Your task to perform on an android device: read, delete, or share a saved page in the chrome app Image 0: 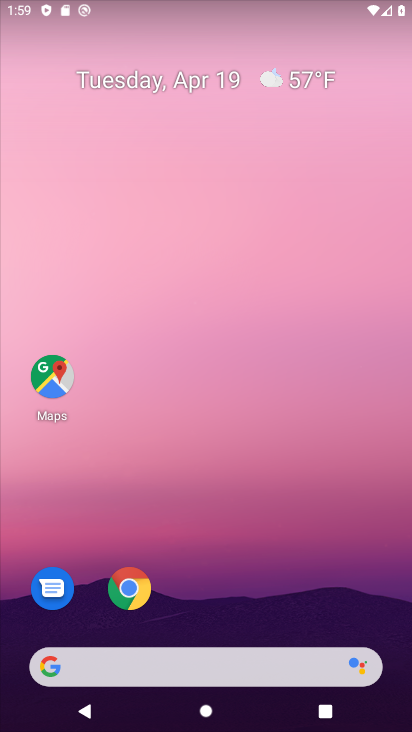
Step 0: click (132, 588)
Your task to perform on an android device: read, delete, or share a saved page in the chrome app Image 1: 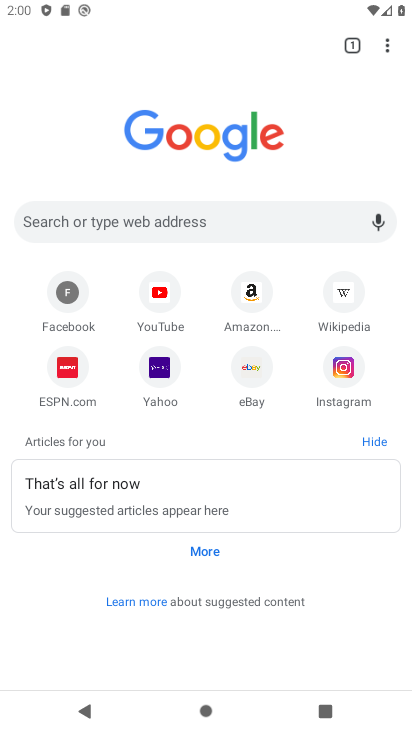
Step 1: click (389, 37)
Your task to perform on an android device: read, delete, or share a saved page in the chrome app Image 2: 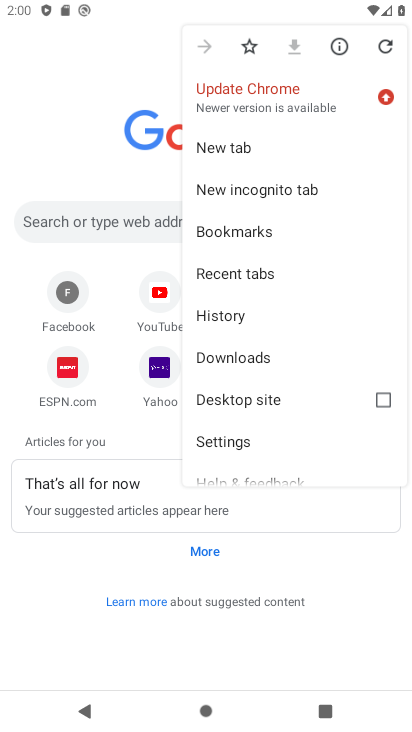
Step 2: click (260, 231)
Your task to perform on an android device: read, delete, or share a saved page in the chrome app Image 3: 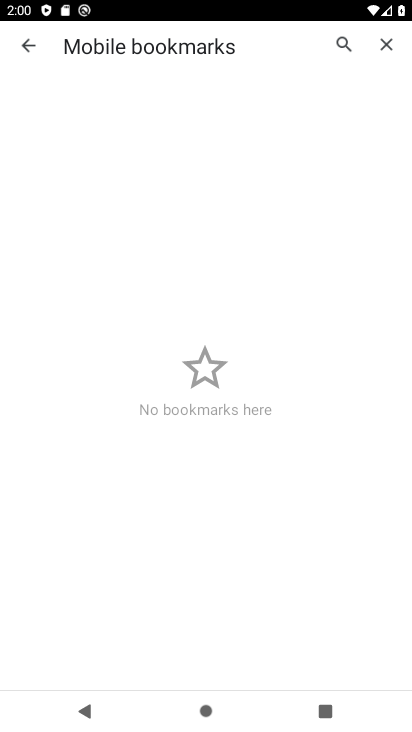
Step 3: task complete